Your task to perform on an android device: View the shopping cart on bestbuy. Add macbook to the cart on bestbuy, then select checkout. Image 0: 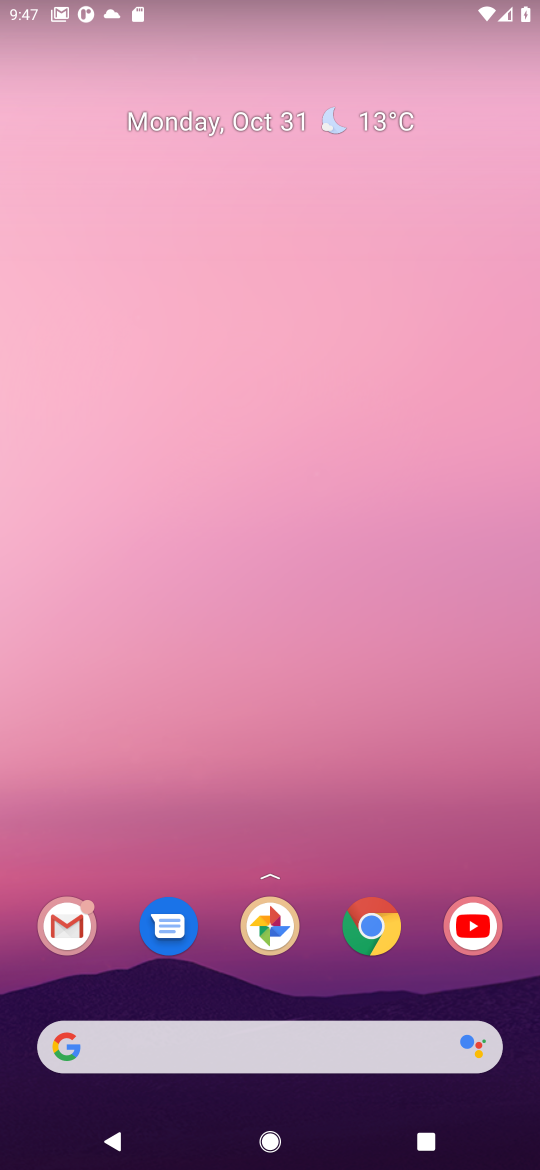
Step 0: click (370, 927)
Your task to perform on an android device: View the shopping cart on bestbuy. Add macbook to the cart on bestbuy, then select checkout. Image 1: 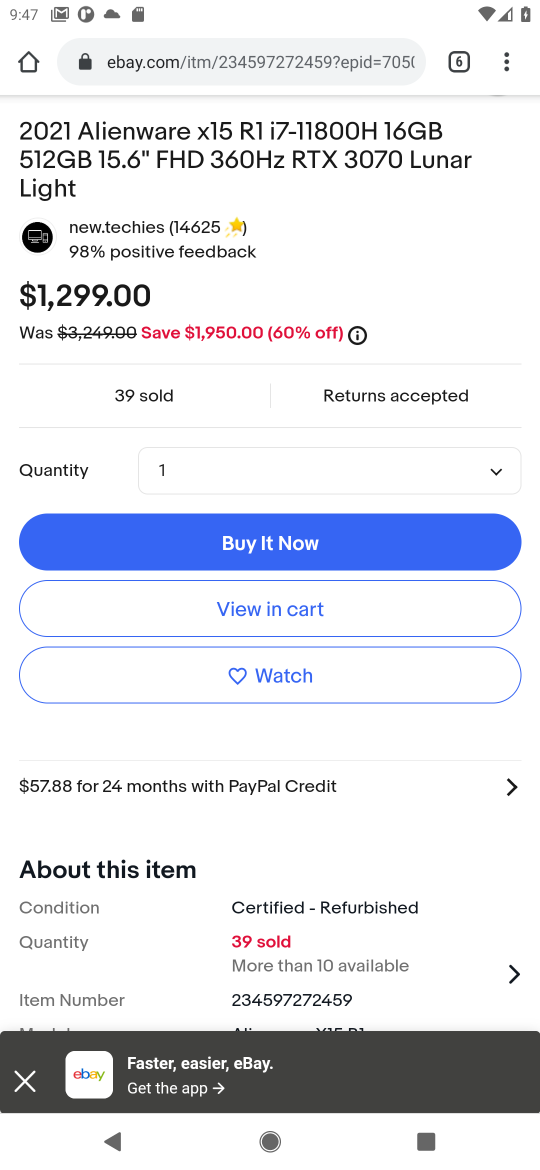
Step 1: click (460, 58)
Your task to perform on an android device: View the shopping cart on bestbuy. Add macbook to the cart on bestbuy, then select checkout. Image 2: 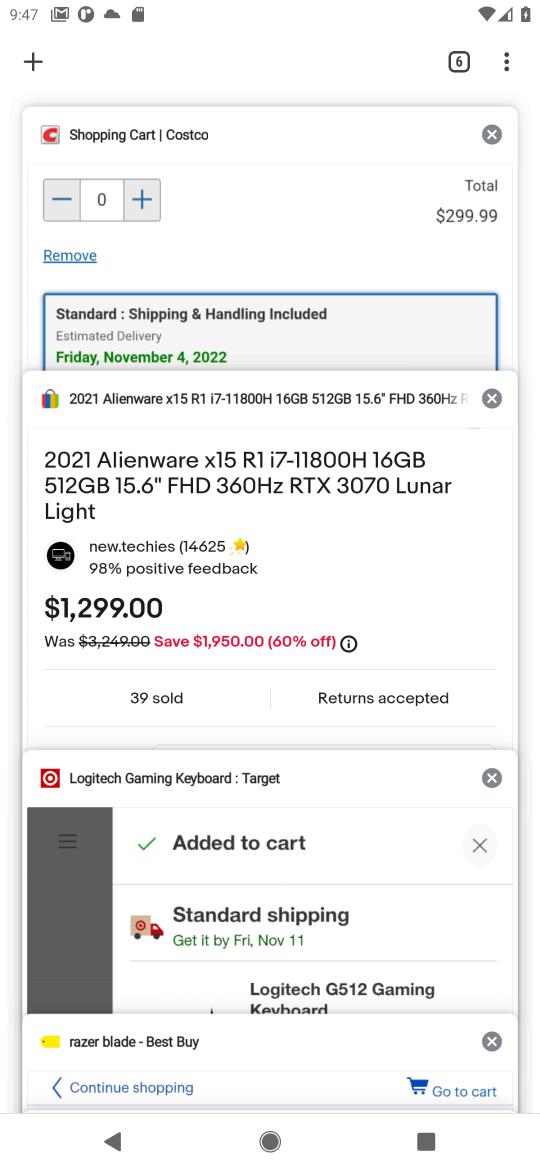
Step 2: click (213, 1063)
Your task to perform on an android device: View the shopping cart on bestbuy. Add macbook to the cart on bestbuy, then select checkout. Image 3: 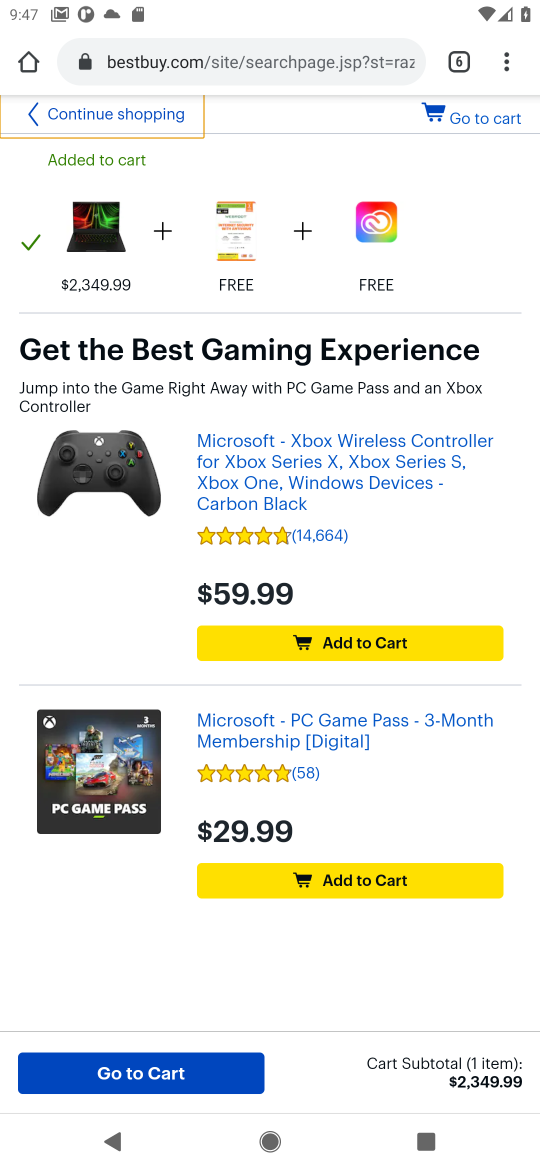
Step 3: click (486, 113)
Your task to perform on an android device: View the shopping cart on bestbuy. Add macbook to the cart on bestbuy, then select checkout. Image 4: 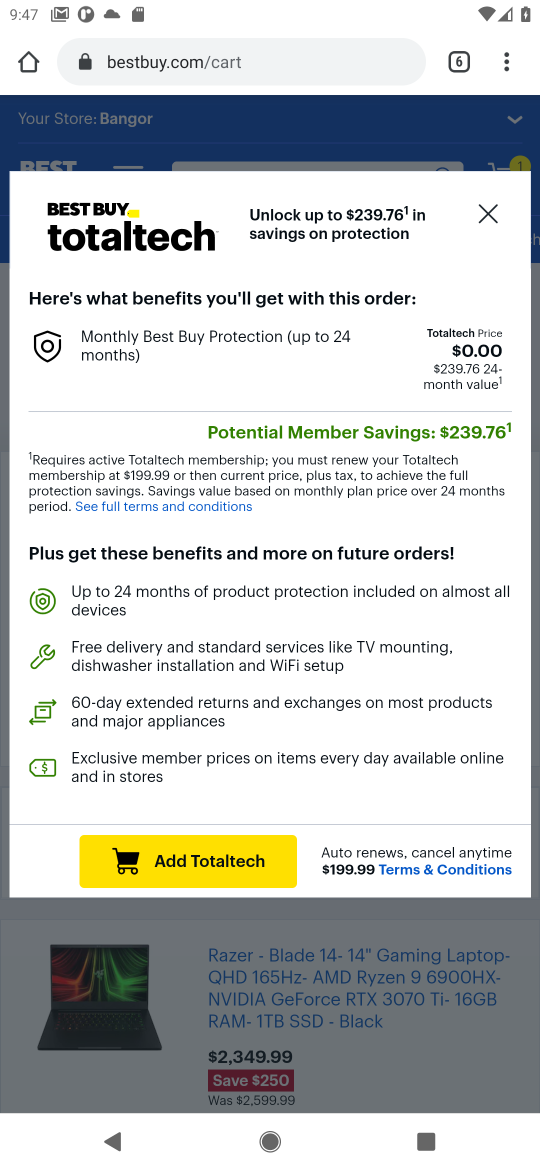
Step 4: click (492, 211)
Your task to perform on an android device: View the shopping cart on bestbuy. Add macbook to the cart on bestbuy, then select checkout. Image 5: 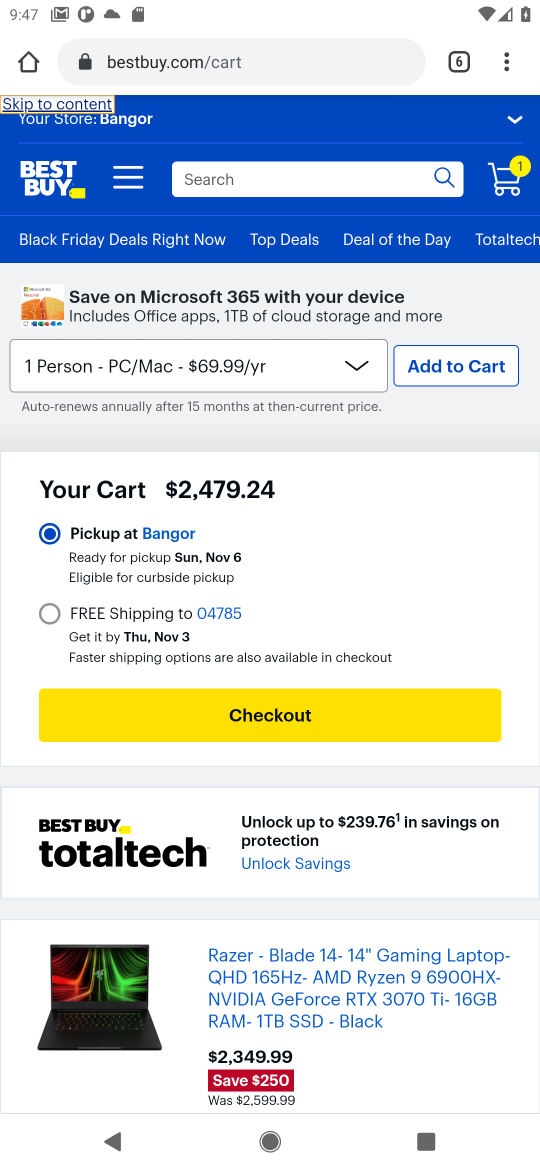
Step 5: click (297, 184)
Your task to perform on an android device: View the shopping cart on bestbuy. Add macbook to the cart on bestbuy, then select checkout. Image 6: 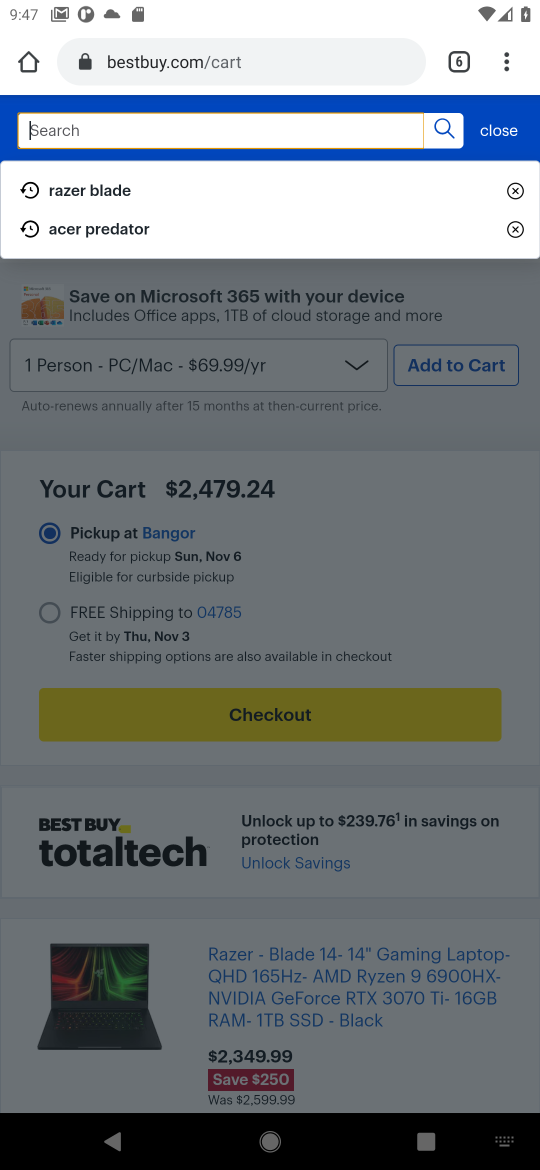
Step 6: type "macbook"
Your task to perform on an android device: View the shopping cart on bestbuy. Add macbook to the cart on bestbuy, then select checkout. Image 7: 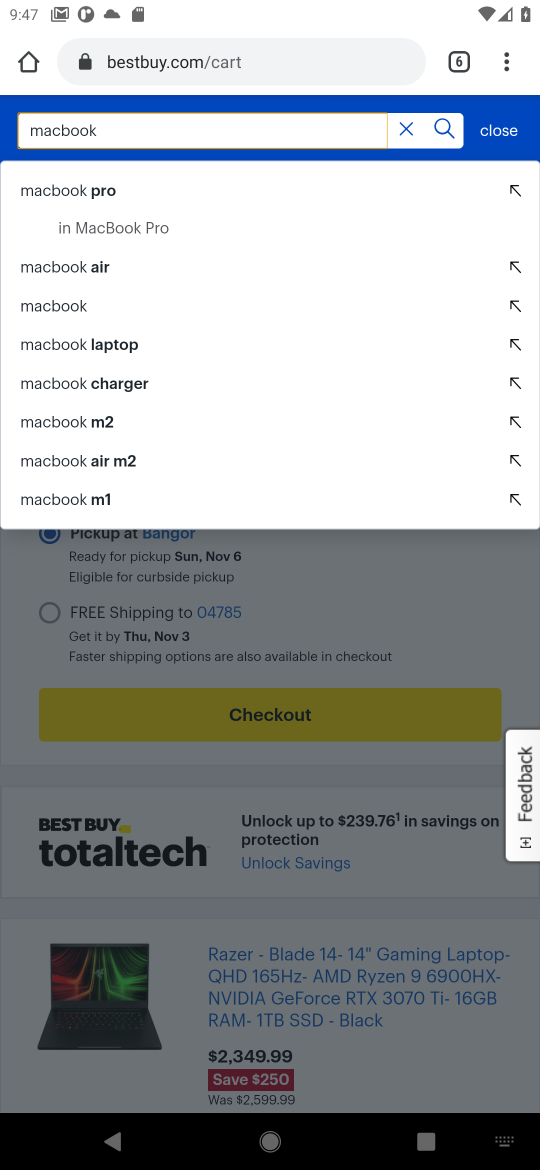
Step 7: click (101, 184)
Your task to perform on an android device: View the shopping cart on bestbuy. Add macbook to the cart on bestbuy, then select checkout. Image 8: 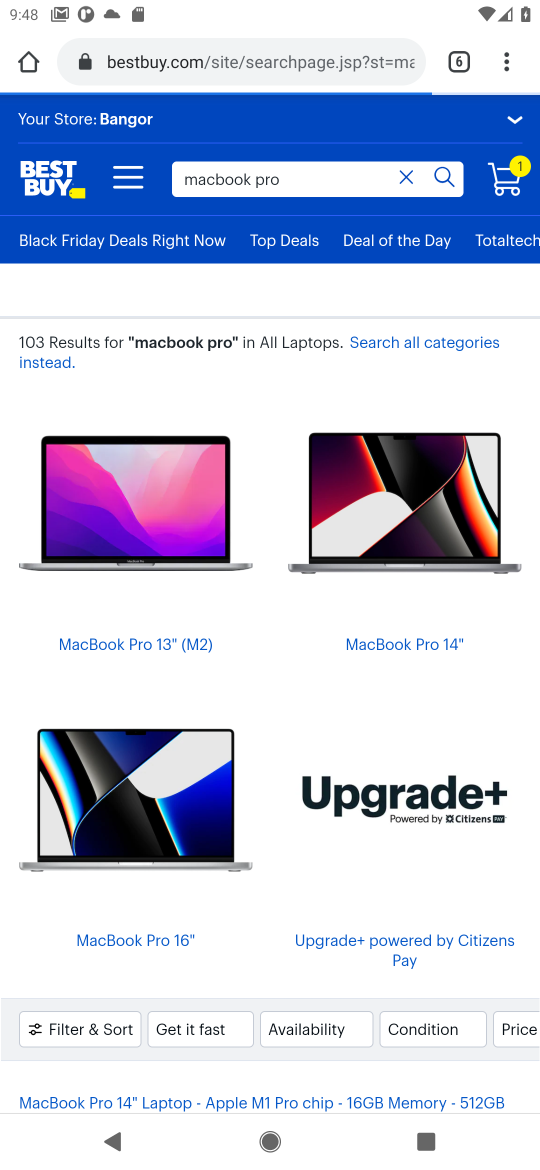
Step 8: click (171, 638)
Your task to perform on an android device: View the shopping cart on bestbuy. Add macbook to the cart on bestbuy, then select checkout. Image 9: 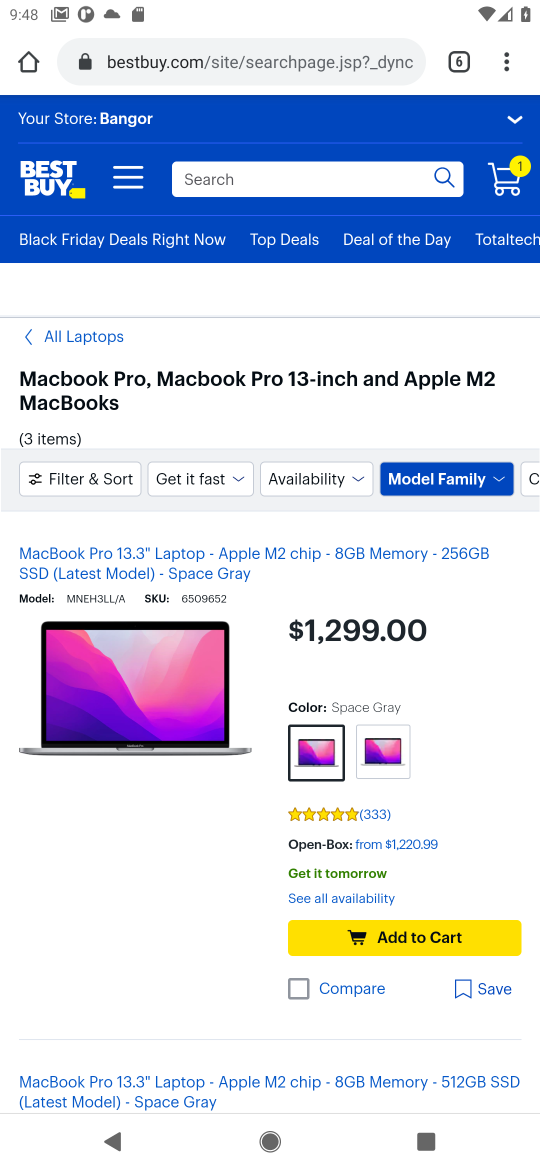
Step 9: click (394, 890)
Your task to perform on an android device: View the shopping cart on bestbuy. Add macbook to the cart on bestbuy, then select checkout. Image 10: 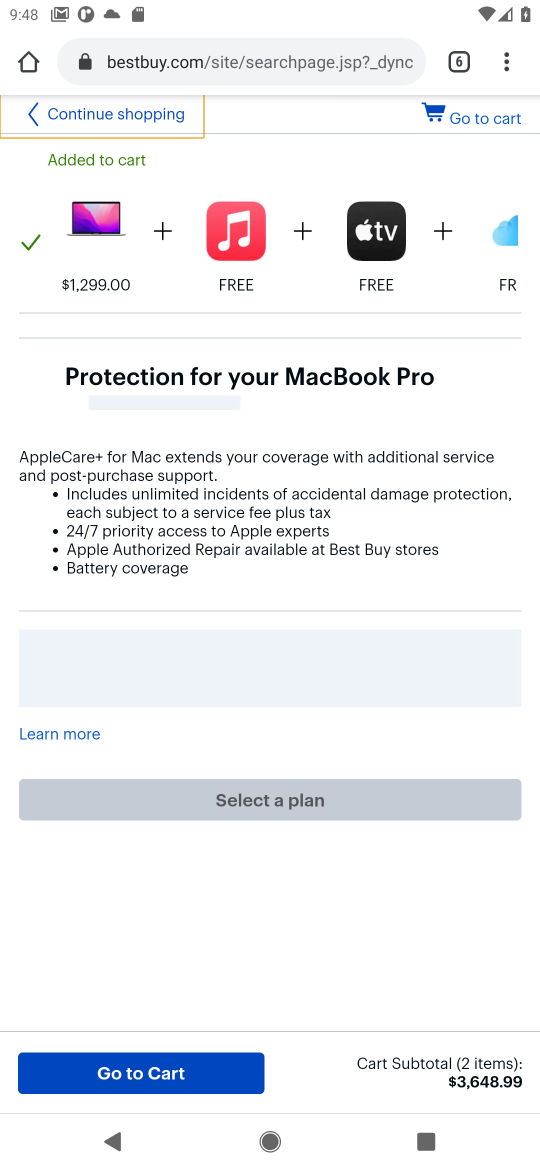
Step 10: task complete